Your task to perform on an android device: delete browsing data in the chrome app Image 0: 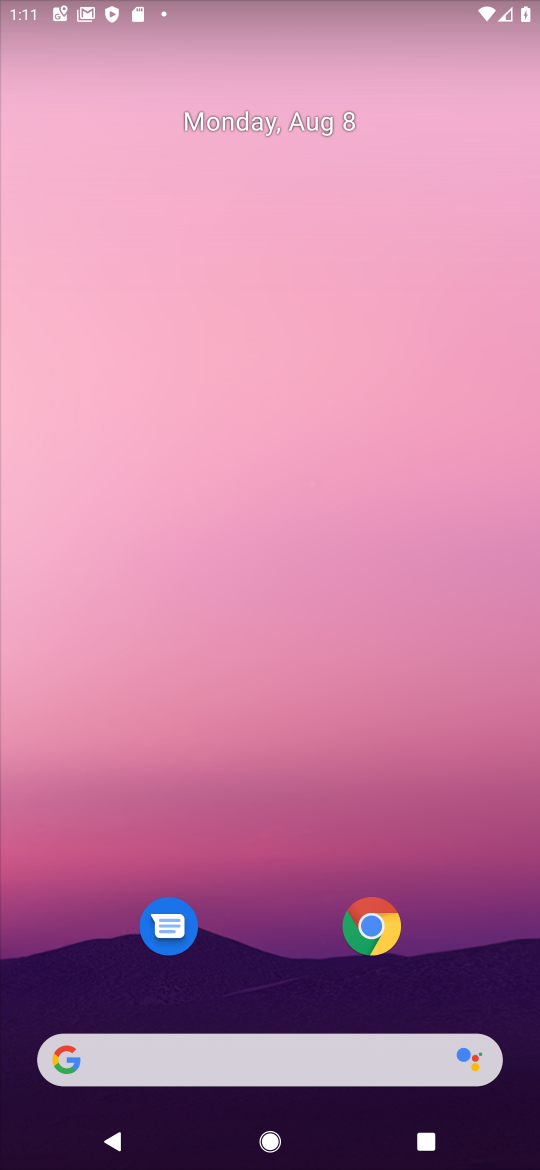
Step 0: click (273, 398)
Your task to perform on an android device: delete browsing data in the chrome app Image 1: 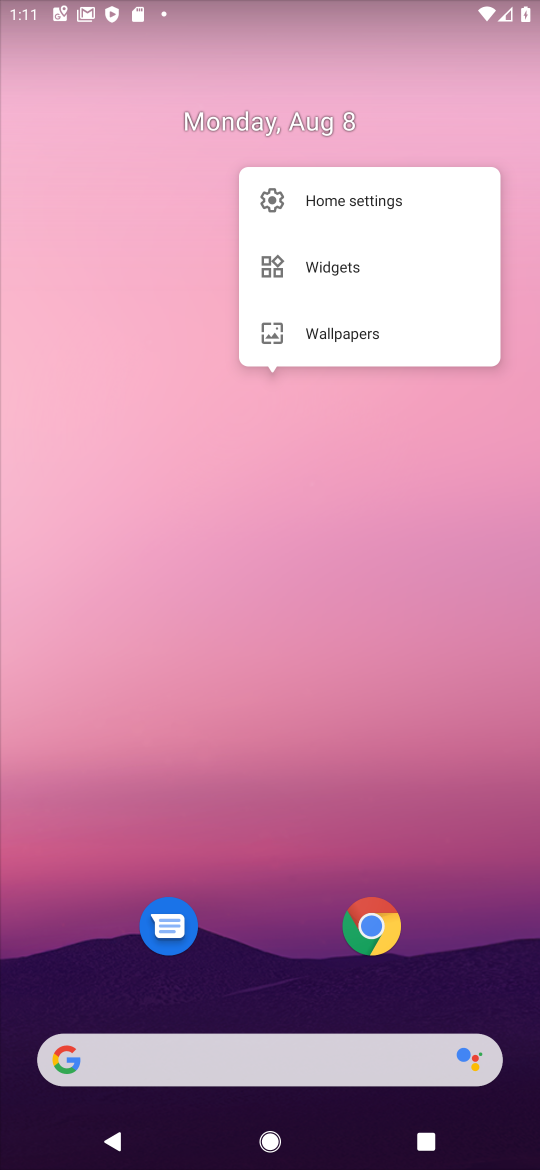
Step 1: click (393, 612)
Your task to perform on an android device: delete browsing data in the chrome app Image 2: 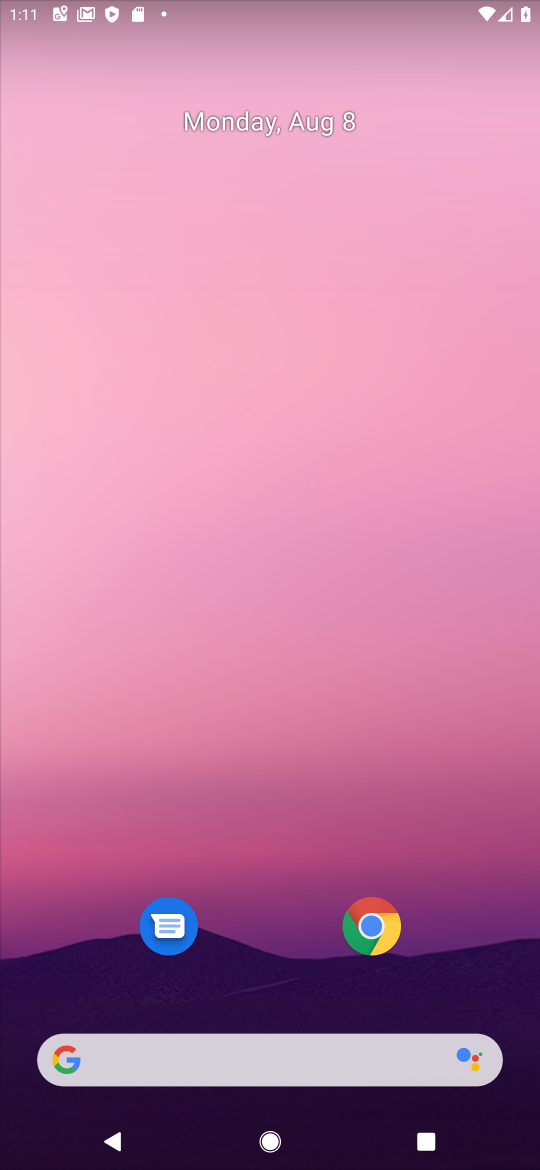
Step 2: drag from (250, 852) to (228, 88)
Your task to perform on an android device: delete browsing data in the chrome app Image 3: 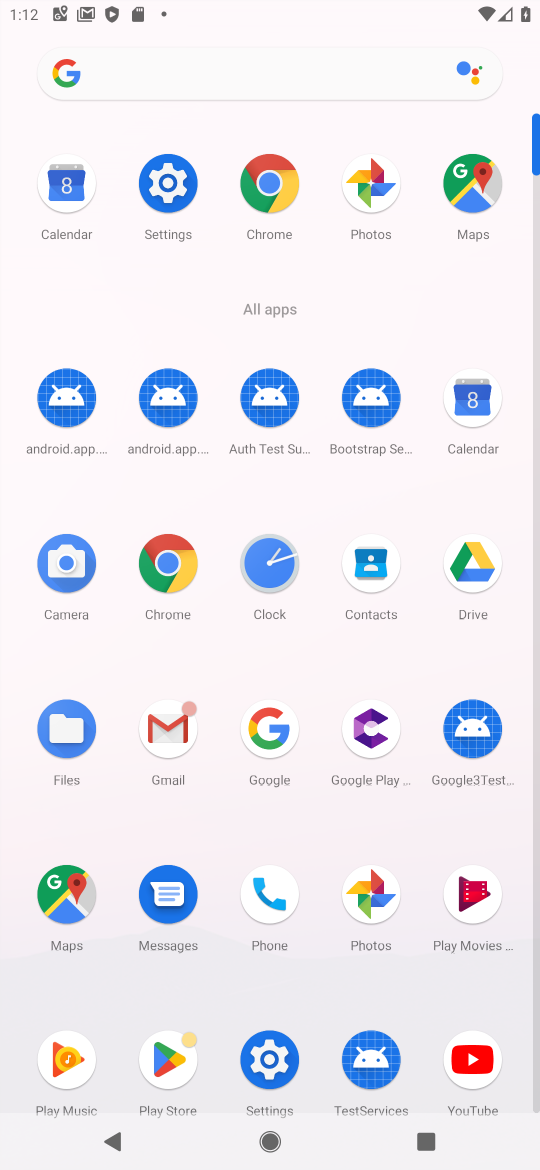
Step 3: click (264, 183)
Your task to perform on an android device: delete browsing data in the chrome app Image 4: 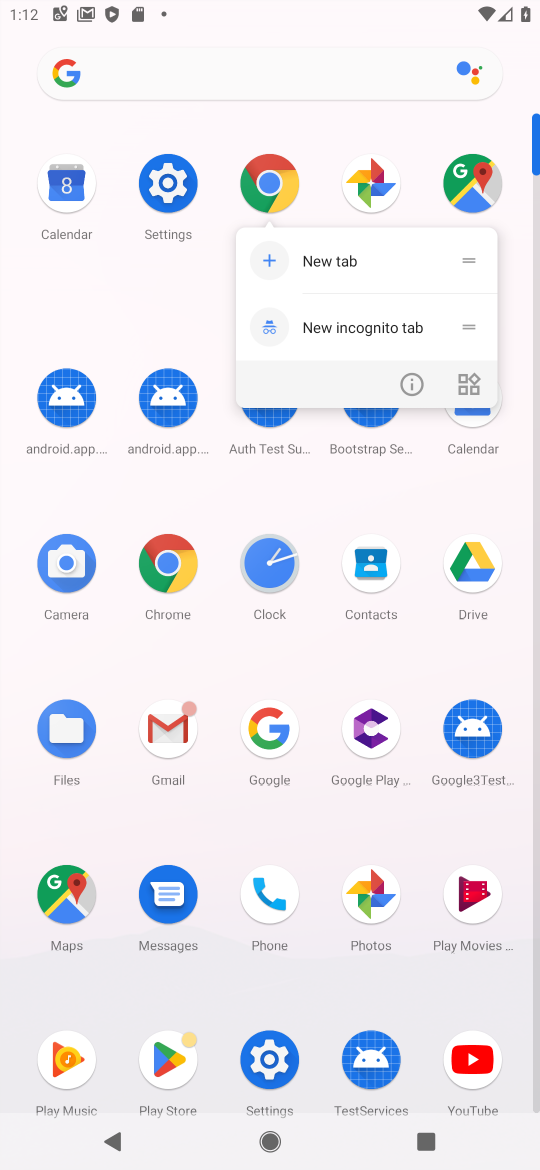
Step 4: click (276, 172)
Your task to perform on an android device: delete browsing data in the chrome app Image 5: 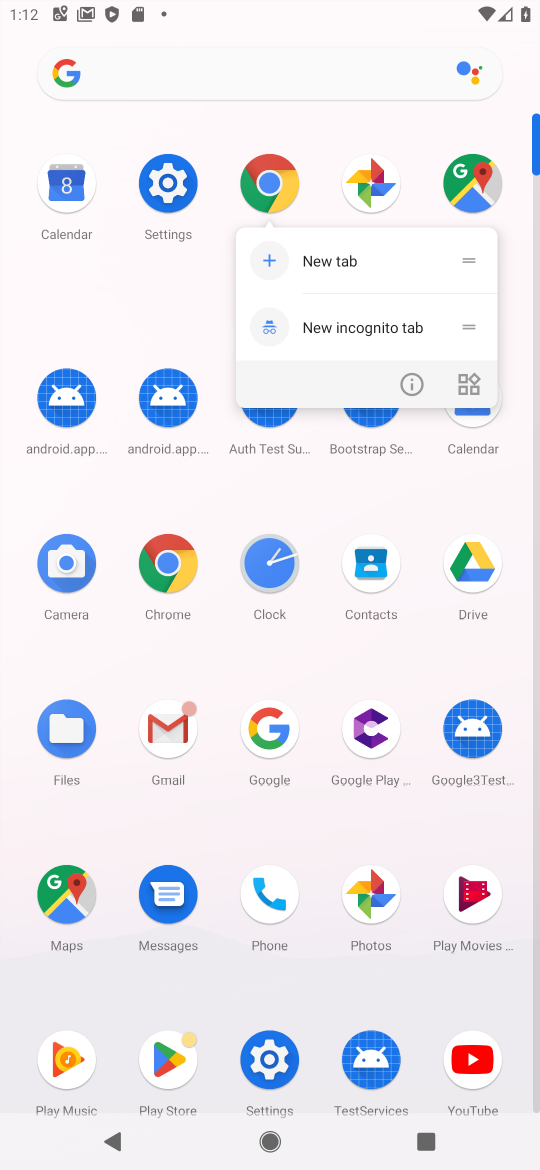
Step 5: click (280, 165)
Your task to perform on an android device: delete browsing data in the chrome app Image 6: 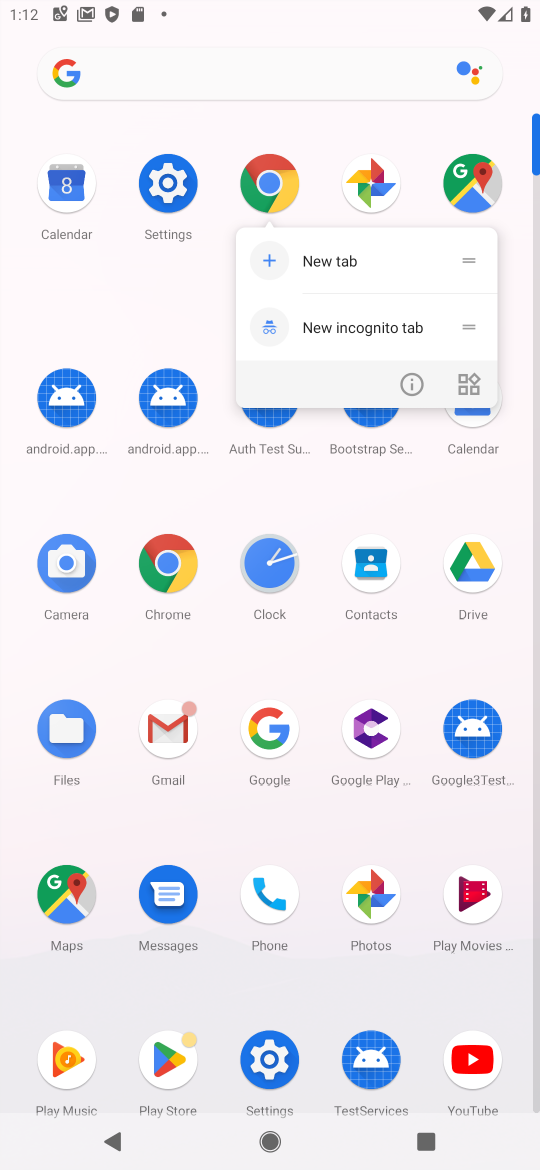
Step 6: click (277, 170)
Your task to perform on an android device: delete browsing data in the chrome app Image 7: 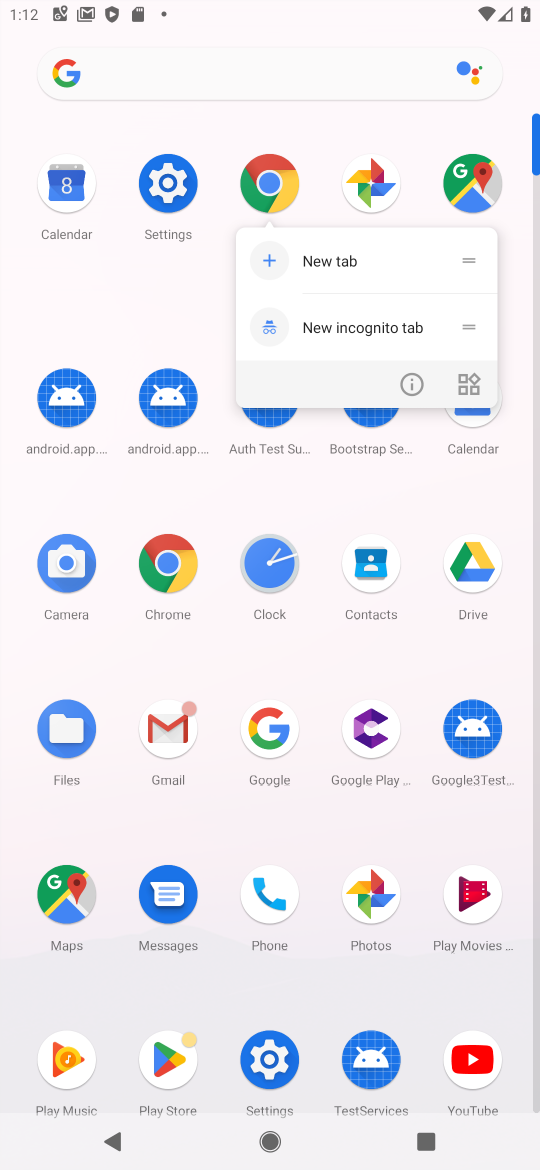
Step 7: click (277, 170)
Your task to perform on an android device: delete browsing data in the chrome app Image 8: 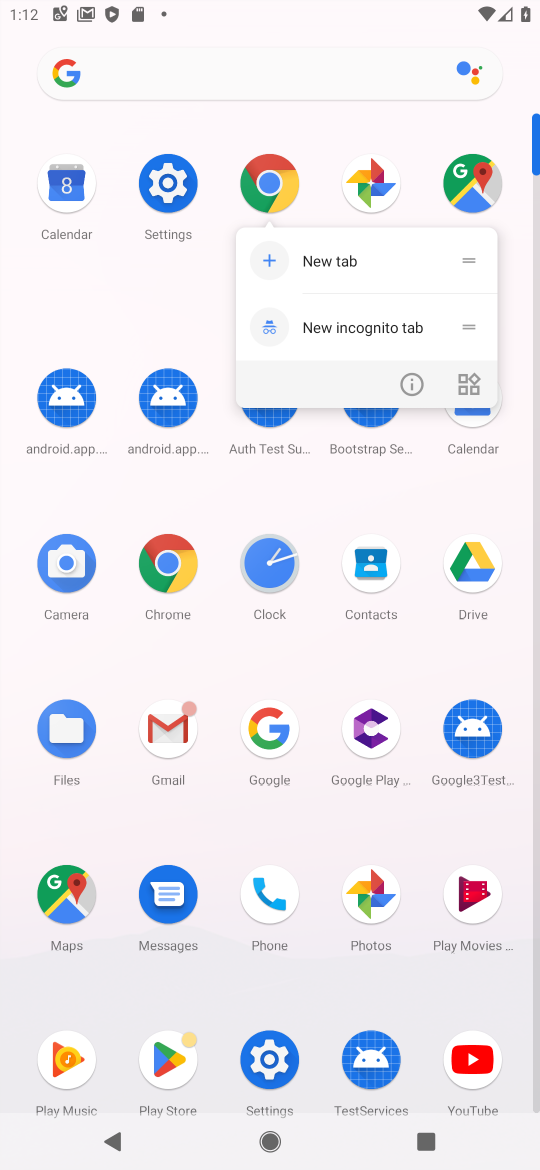
Step 8: click (257, 188)
Your task to perform on an android device: delete browsing data in the chrome app Image 9: 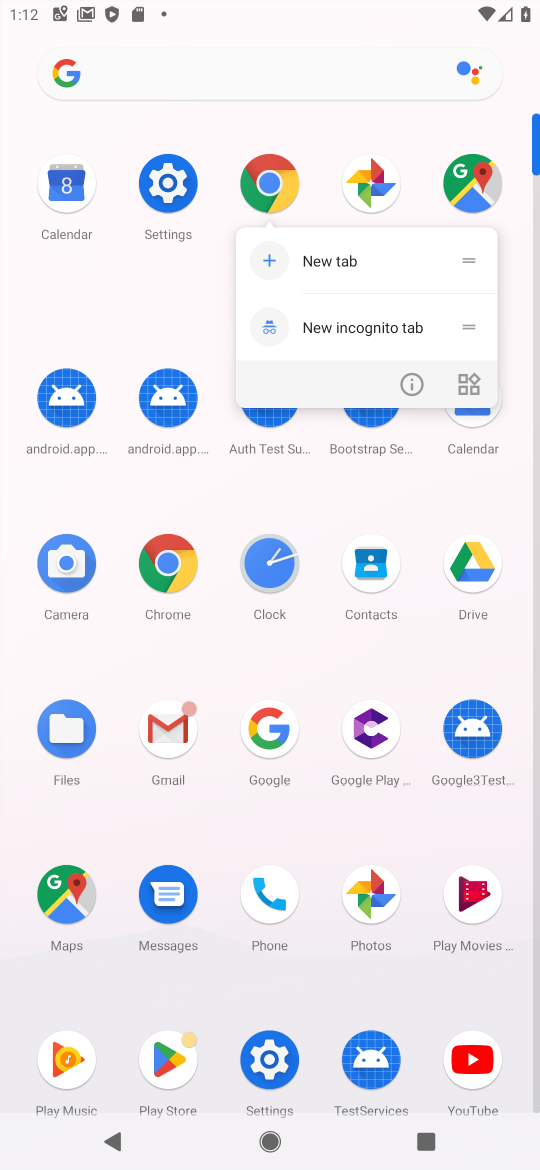
Step 9: click (257, 191)
Your task to perform on an android device: delete browsing data in the chrome app Image 10: 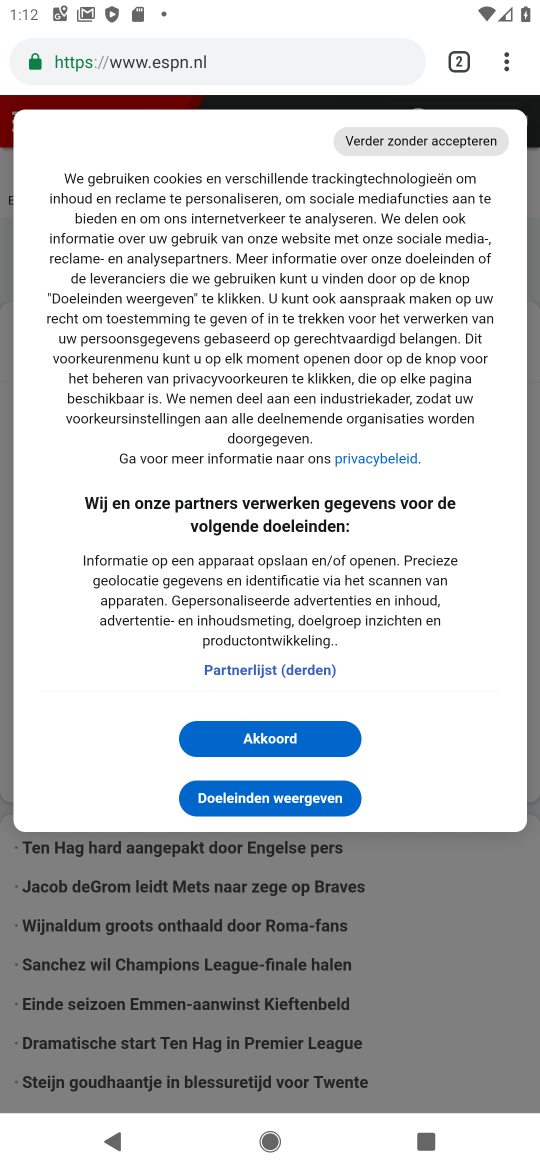
Step 10: click (511, 49)
Your task to perform on an android device: delete browsing data in the chrome app Image 11: 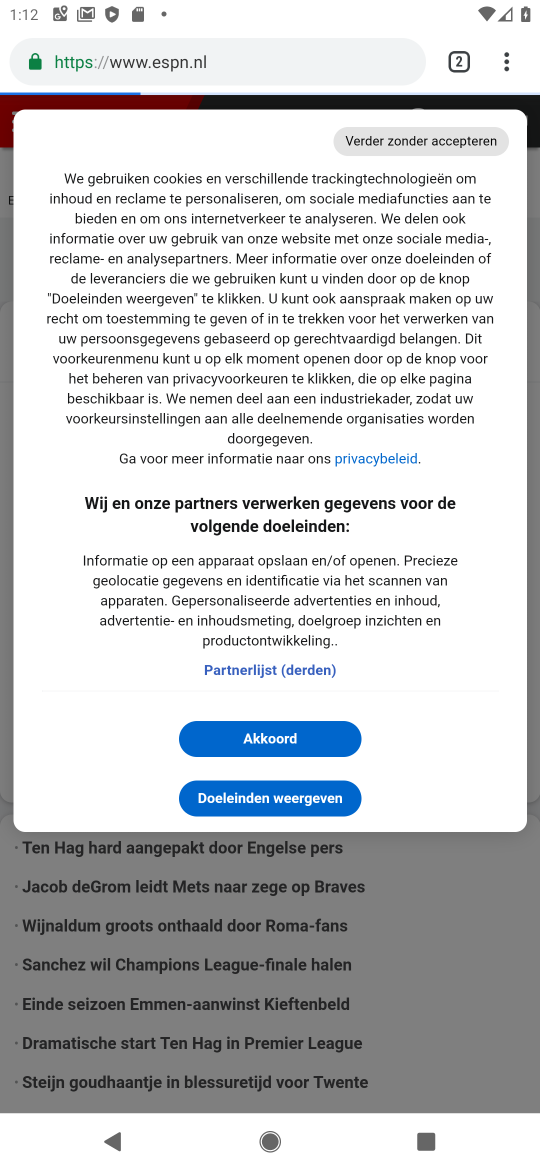
Step 11: click (511, 49)
Your task to perform on an android device: delete browsing data in the chrome app Image 12: 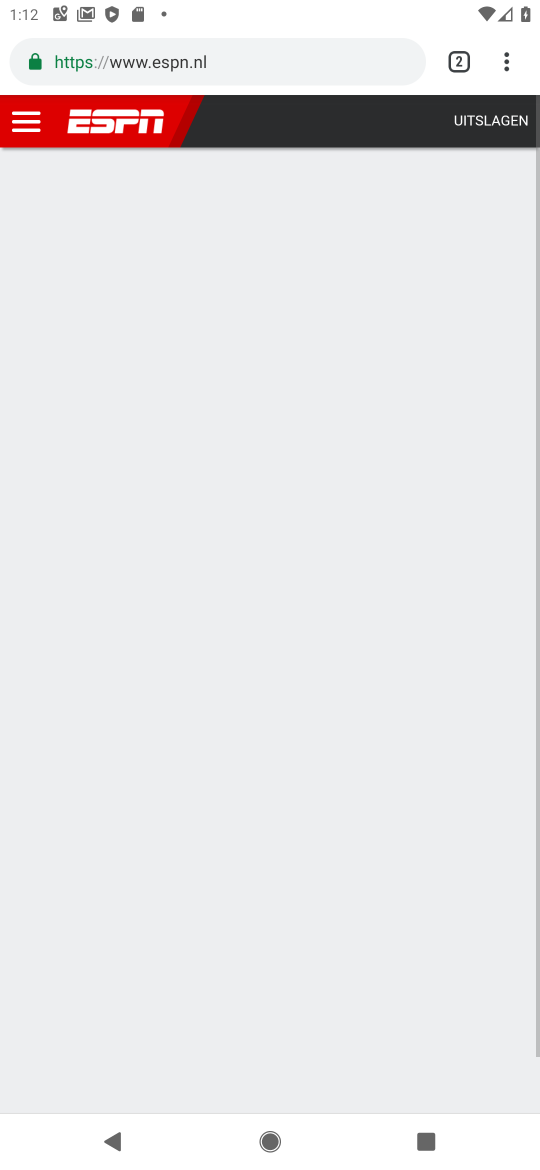
Step 12: click (511, 49)
Your task to perform on an android device: delete browsing data in the chrome app Image 13: 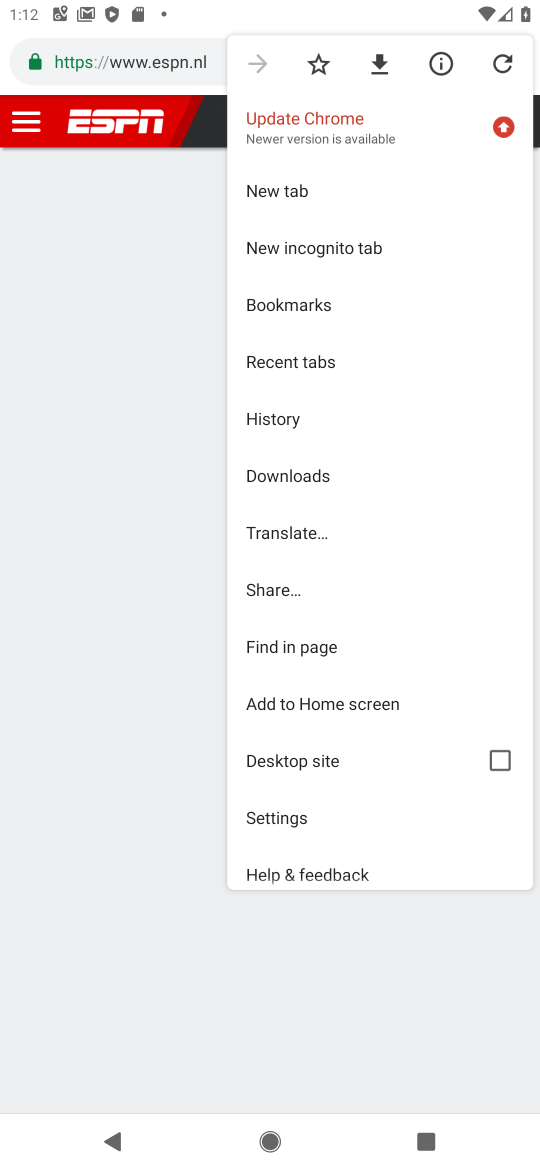
Step 13: click (295, 815)
Your task to perform on an android device: delete browsing data in the chrome app Image 14: 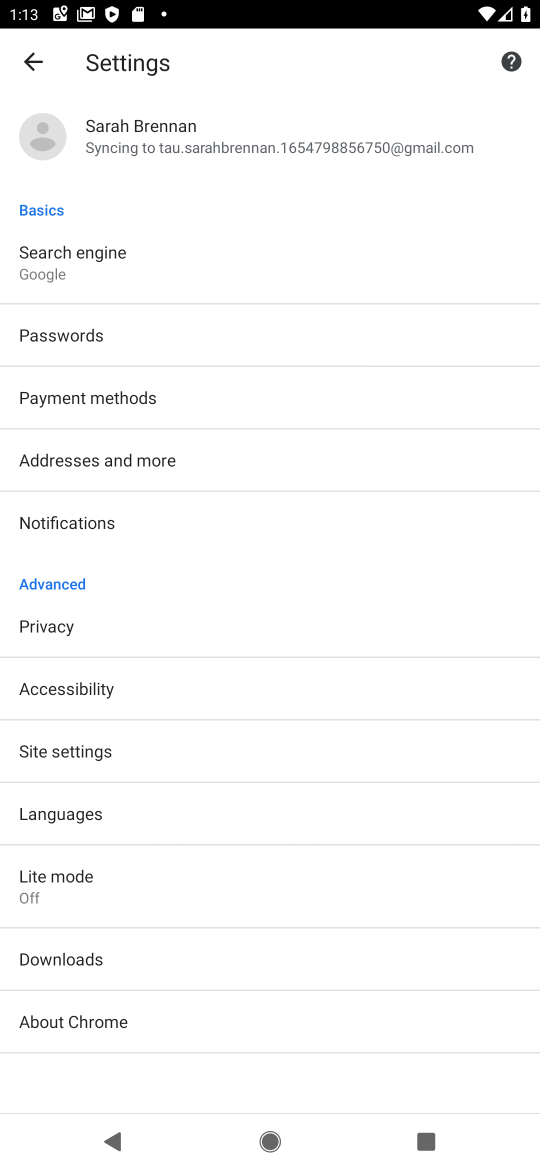
Step 14: drag from (180, 900) to (217, 482)
Your task to perform on an android device: delete browsing data in the chrome app Image 15: 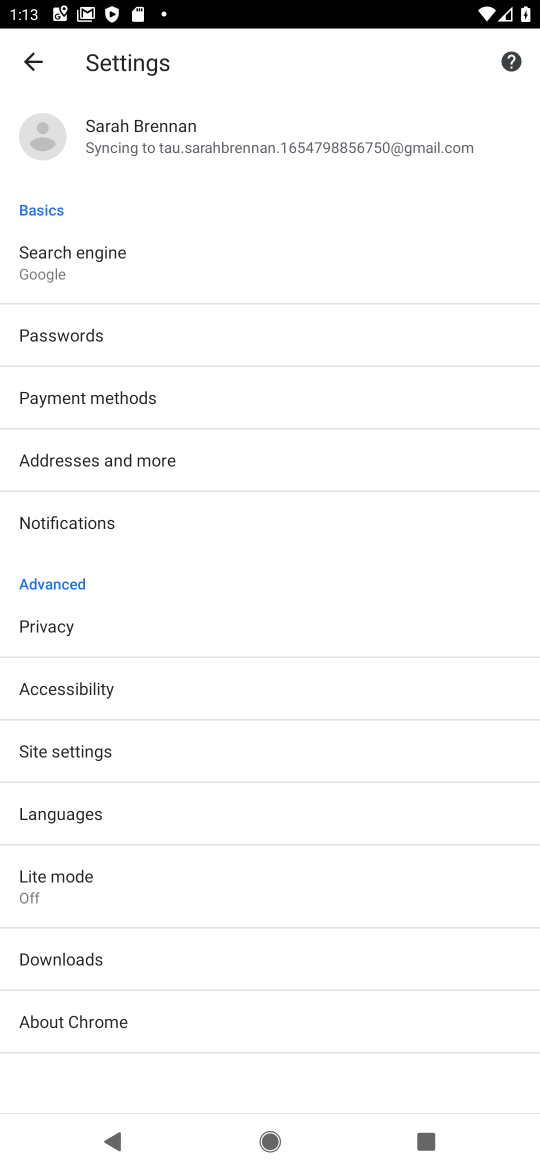
Step 15: click (95, 629)
Your task to perform on an android device: delete browsing data in the chrome app Image 16: 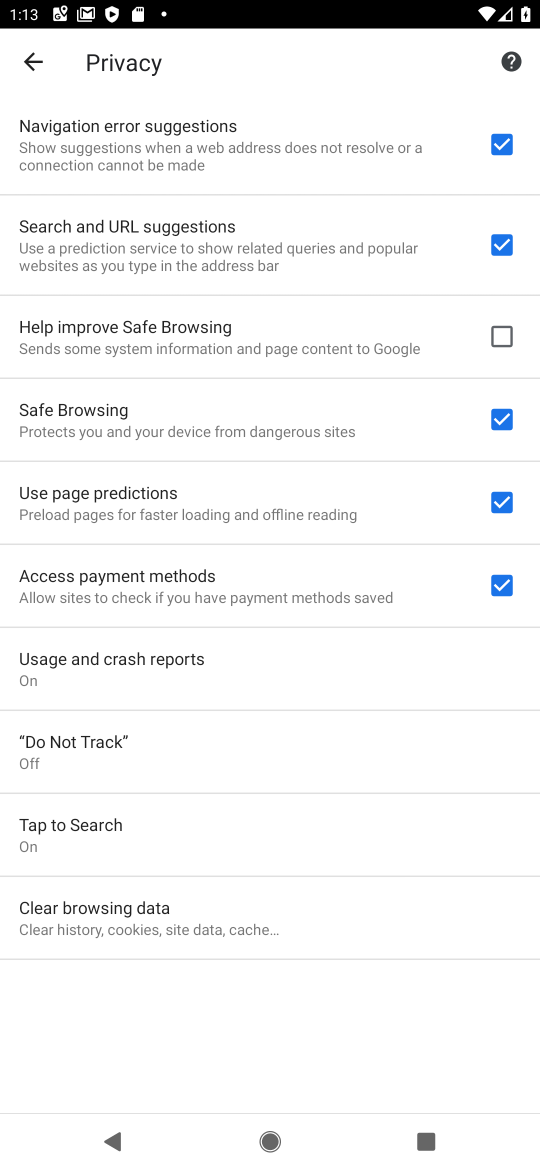
Step 16: click (158, 931)
Your task to perform on an android device: delete browsing data in the chrome app Image 17: 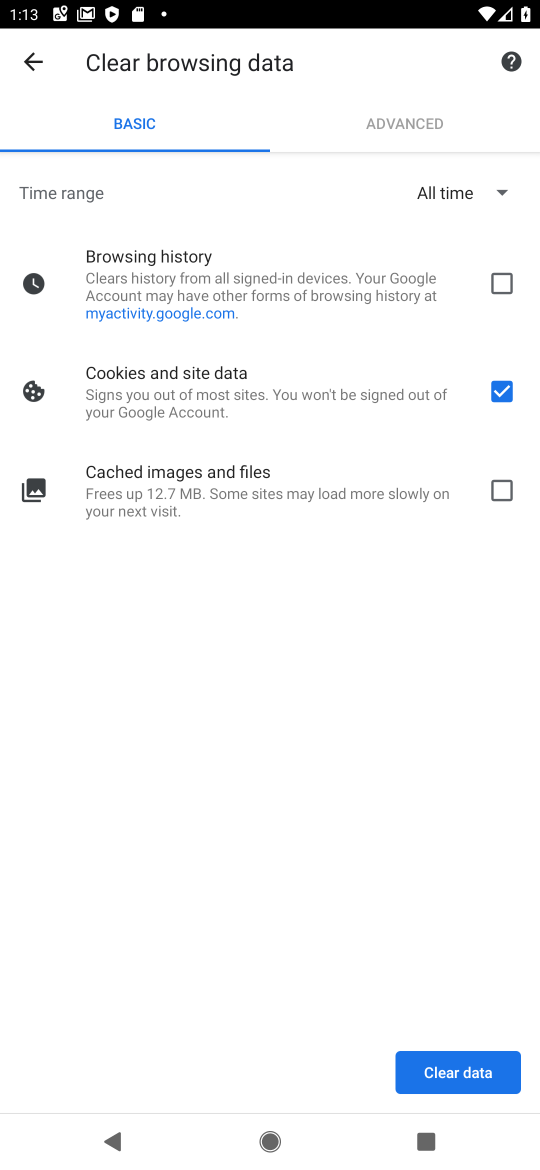
Step 17: click (464, 1054)
Your task to perform on an android device: delete browsing data in the chrome app Image 18: 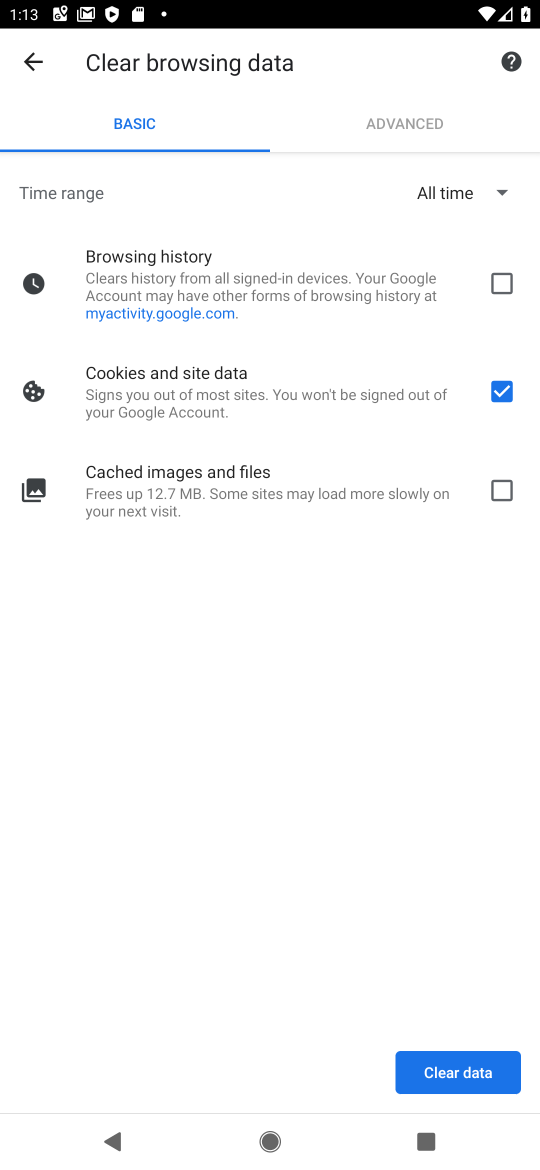
Step 18: click (490, 279)
Your task to perform on an android device: delete browsing data in the chrome app Image 19: 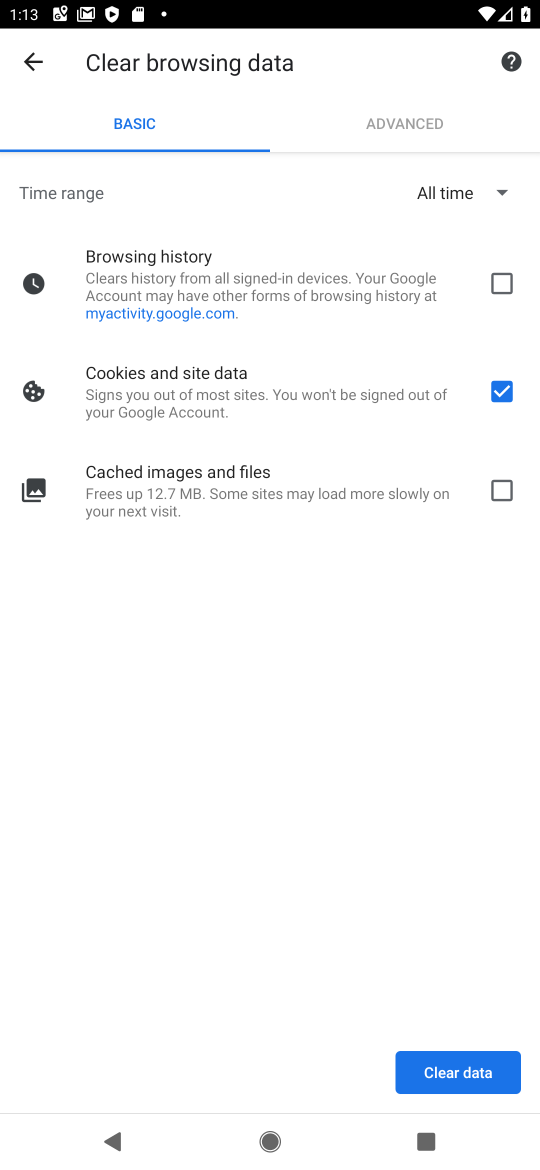
Step 19: click (395, 643)
Your task to perform on an android device: delete browsing data in the chrome app Image 20: 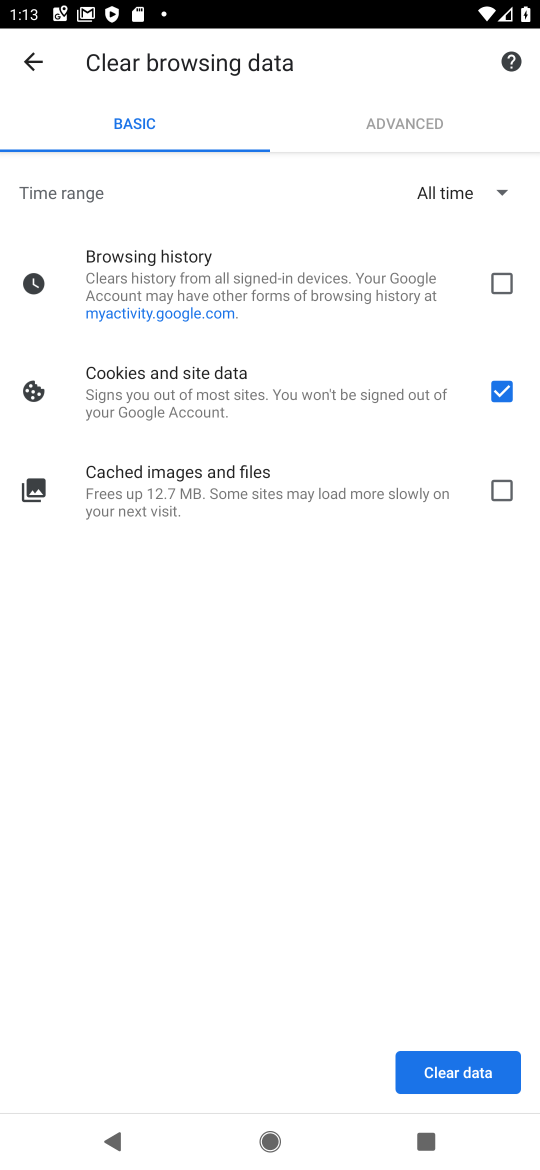
Step 20: click (483, 496)
Your task to perform on an android device: delete browsing data in the chrome app Image 21: 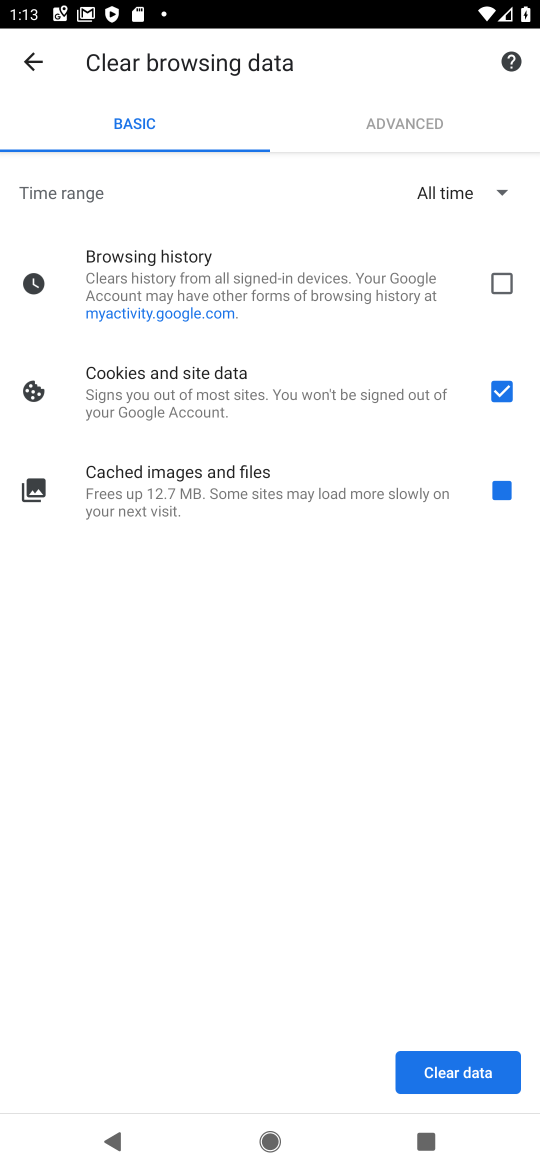
Step 21: click (500, 272)
Your task to perform on an android device: delete browsing data in the chrome app Image 22: 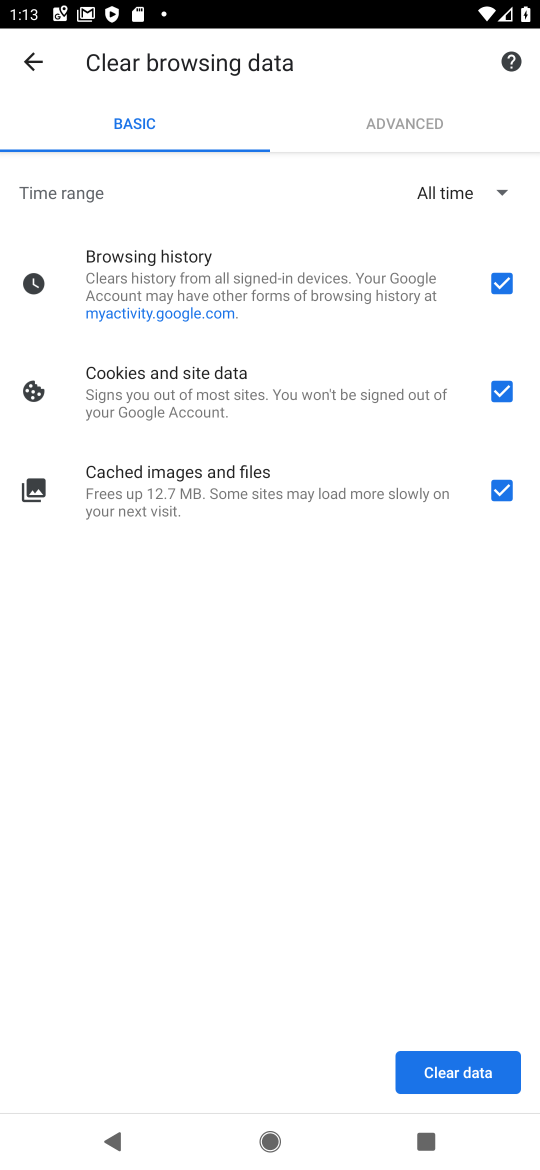
Step 22: click (479, 1065)
Your task to perform on an android device: delete browsing data in the chrome app Image 23: 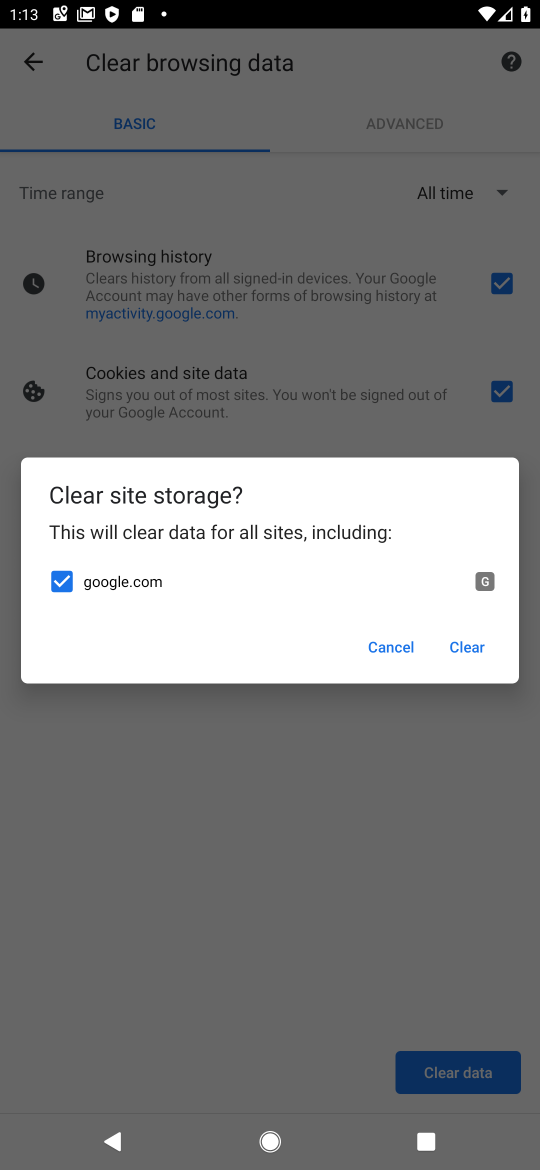
Step 23: click (472, 653)
Your task to perform on an android device: delete browsing data in the chrome app Image 24: 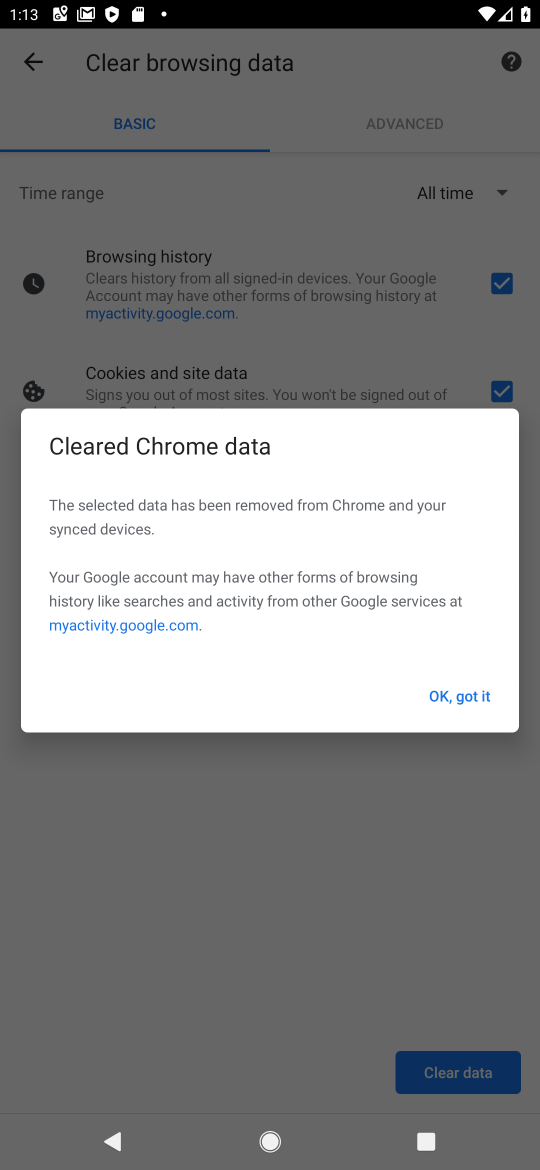
Step 24: task complete